Your task to perform on an android device: Open the calendar and show me this week's events Image 0: 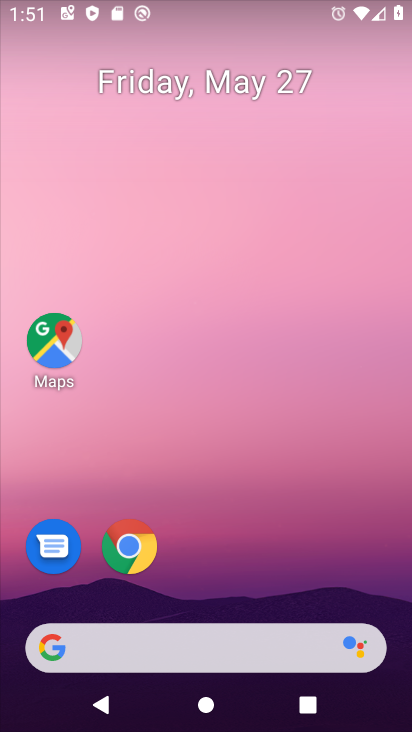
Step 0: drag from (268, 673) to (365, 33)
Your task to perform on an android device: Open the calendar and show me this week's events Image 1: 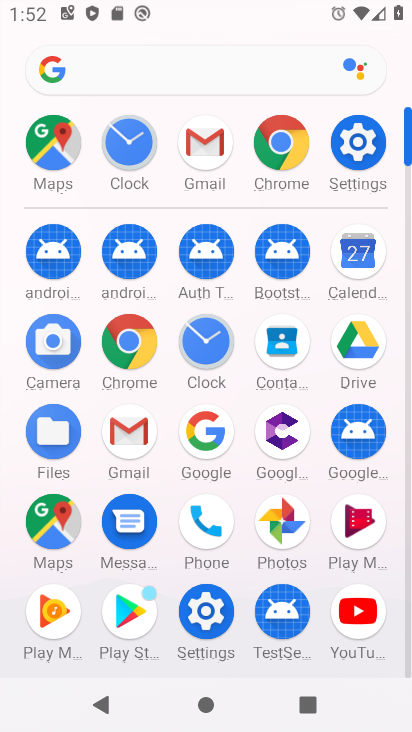
Step 1: click (351, 261)
Your task to perform on an android device: Open the calendar and show me this week's events Image 2: 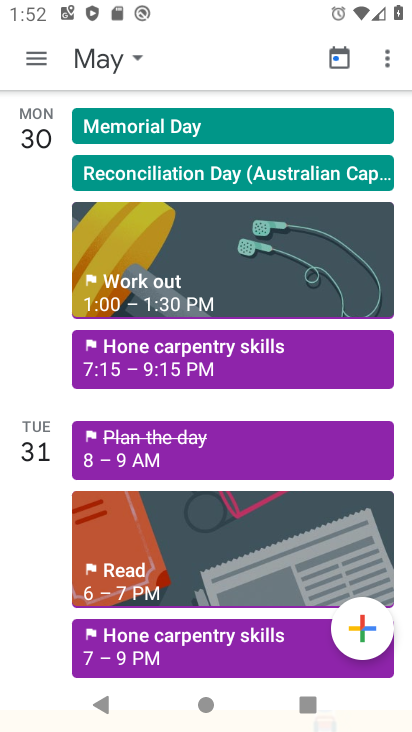
Step 2: task complete